Your task to perform on an android device: turn on showing notifications on the lock screen Image 0: 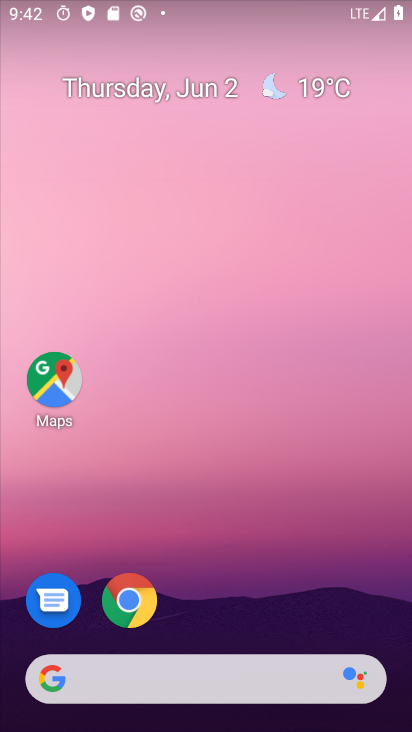
Step 0: drag from (215, 592) to (215, 223)
Your task to perform on an android device: turn on showing notifications on the lock screen Image 1: 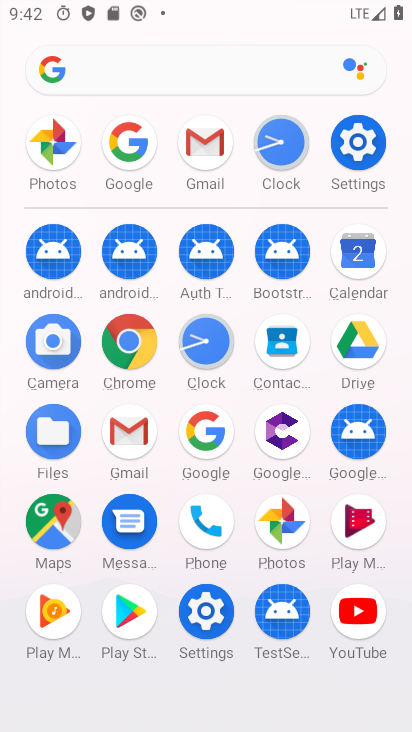
Step 1: click (345, 140)
Your task to perform on an android device: turn on showing notifications on the lock screen Image 2: 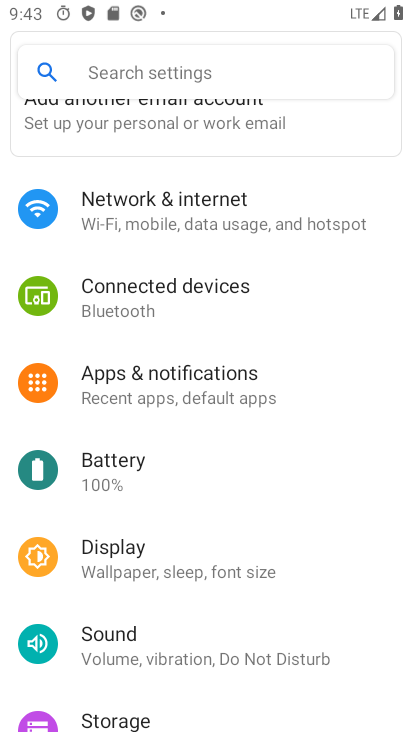
Step 2: click (252, 380)
Your task to perform on an android device: turn on showing notifications on the lock screen Image 3: 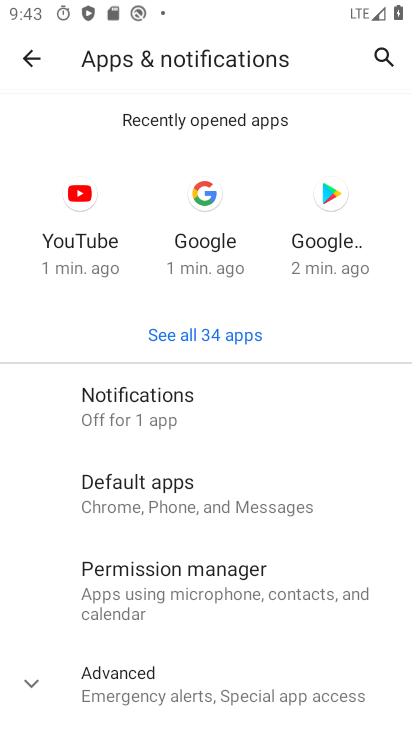
Step 3: click (256, 389)
Your task to perform on an android device: turn on showing notifications on the lock screen Image 4: 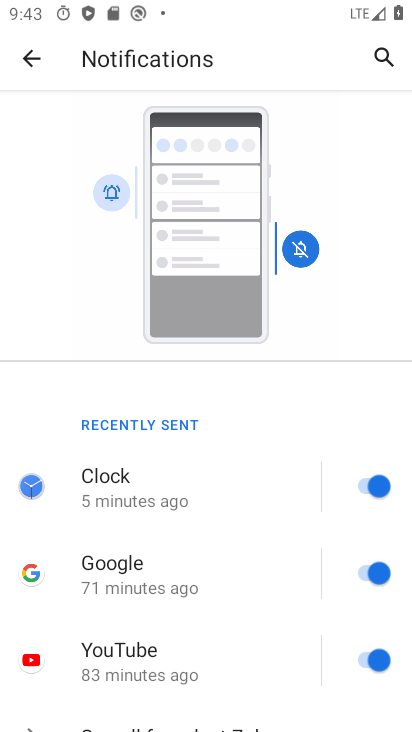
Step 4: drag from (263, 617) to (226, 188)
Your task to perform on an android device: turn on showing notifications on the lock screen Image 5: 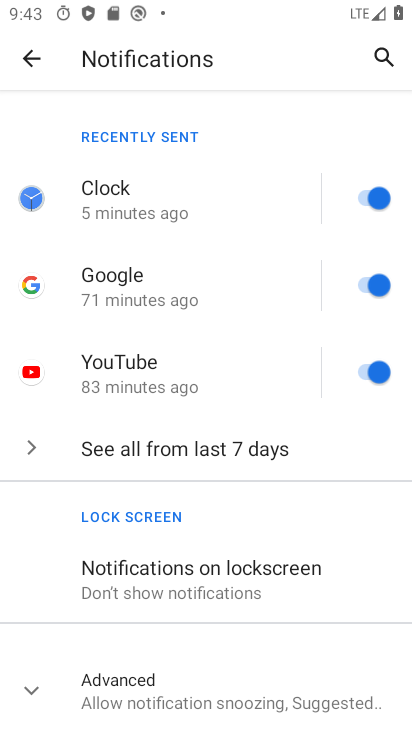
Step 5: click (226, 602)
Your task to perform on an android device: turn on showing notifications on the lock screen Image 6: 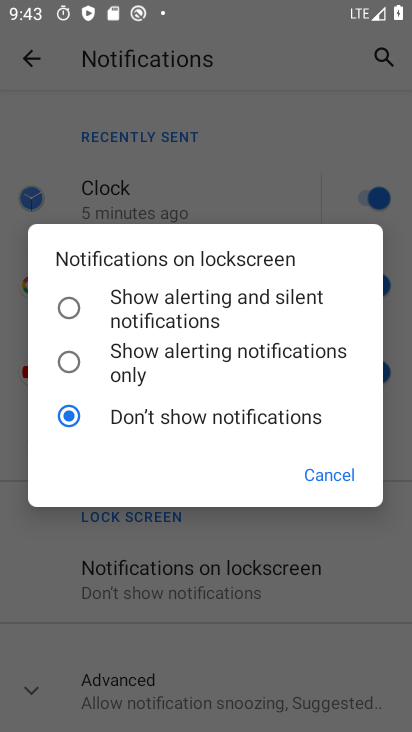
Step 6: click (274, 297)
Your task to perform on an android device: turn on showing notifications on the lock screen Image 7: 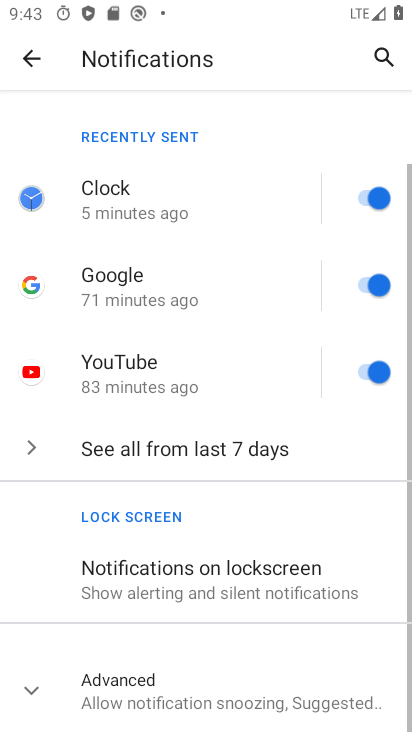
Step 7: task complete